Your task to perform on an android device: delete browsing data in the chrome app Image 0: 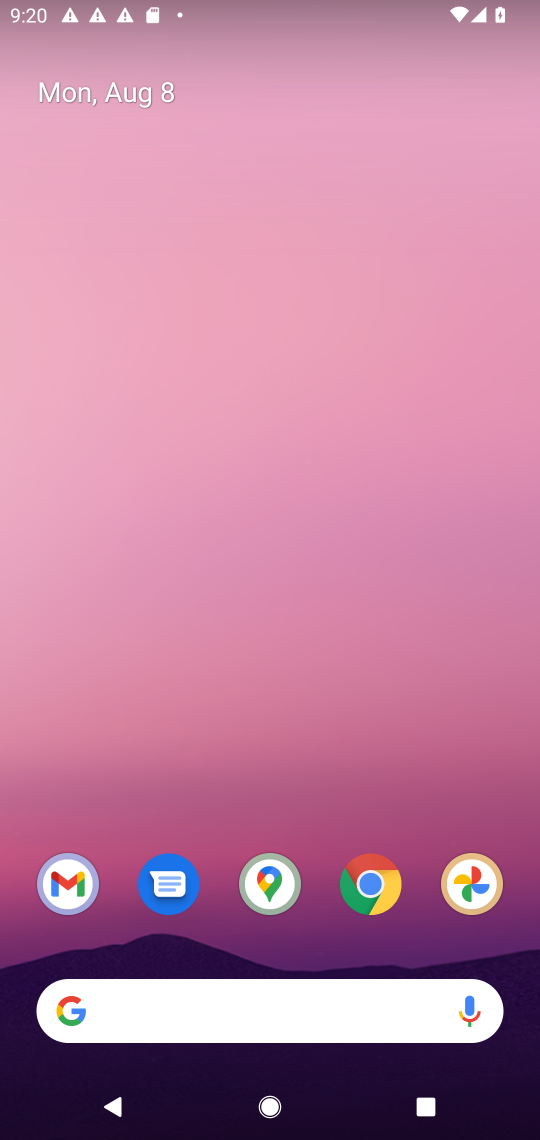
Step 0: click (366, 882)
Your task to perform on an android device: delete browsing data in the chrome app Image 1: 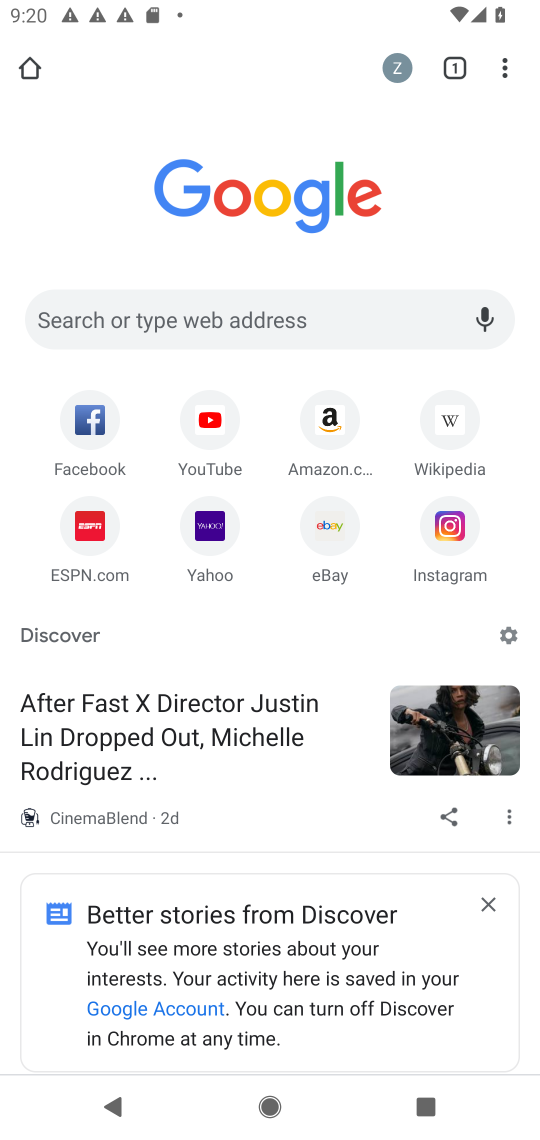
Step 1: click (504, 72)
Your task to perform on an android device: delete browsing data in the chrome app Image 2: 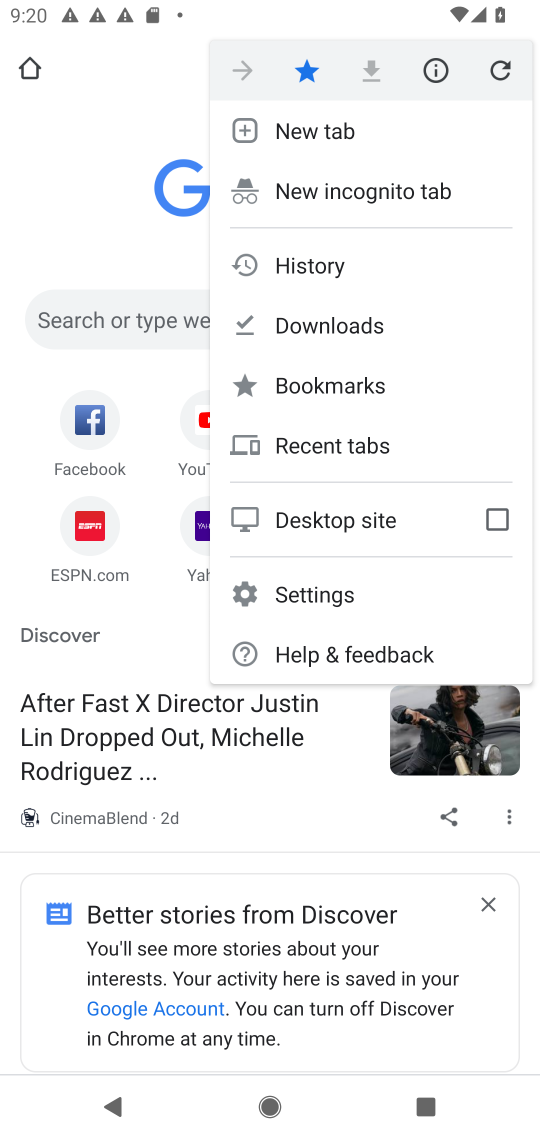
Step 2: click (316, 260)
Your task to perform on an android device: delete browsing data in the chrome app Image 3: 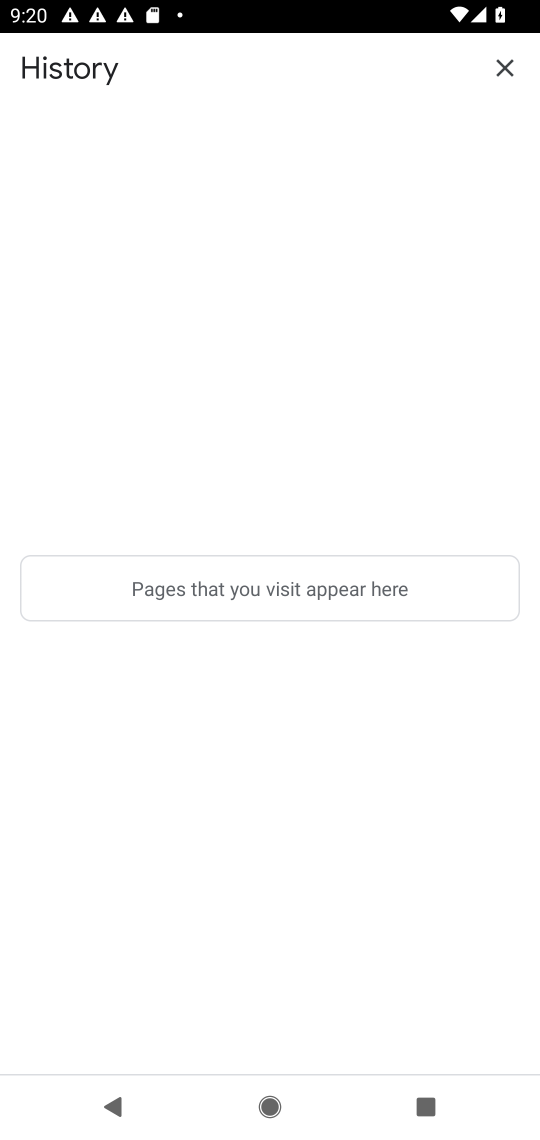
Step 3: task complete